Your task to perform on an android device: Add "logitech g pro" to the cart on ebay, then select checkout. Image 0: 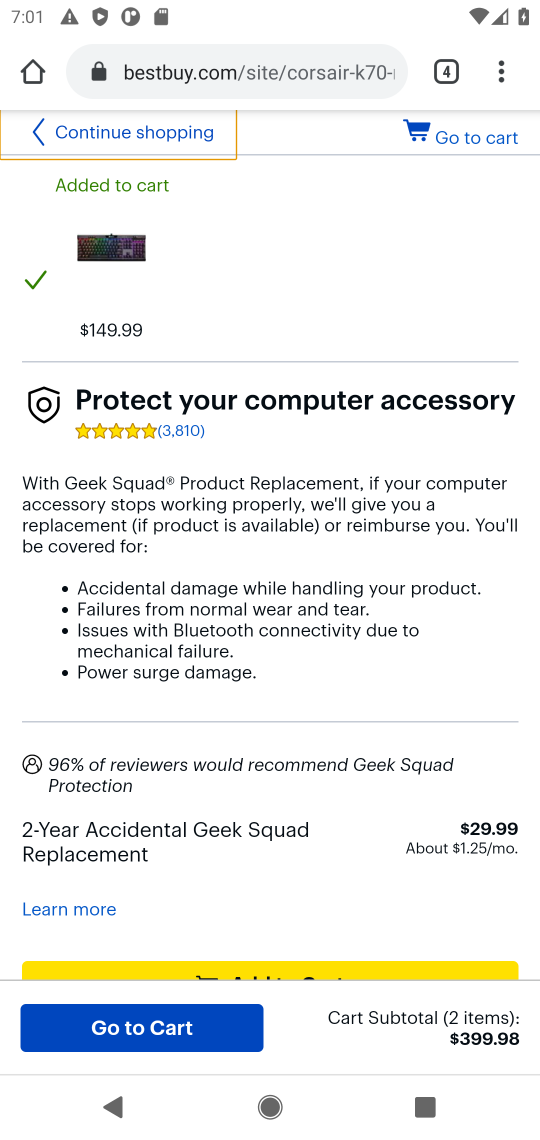
Step 0: drag from (280, 322) to (186, 1007)
Your task to perform on an android device: Add "logitech g pro" to the cart on ebay, then select checkout. Image 1: 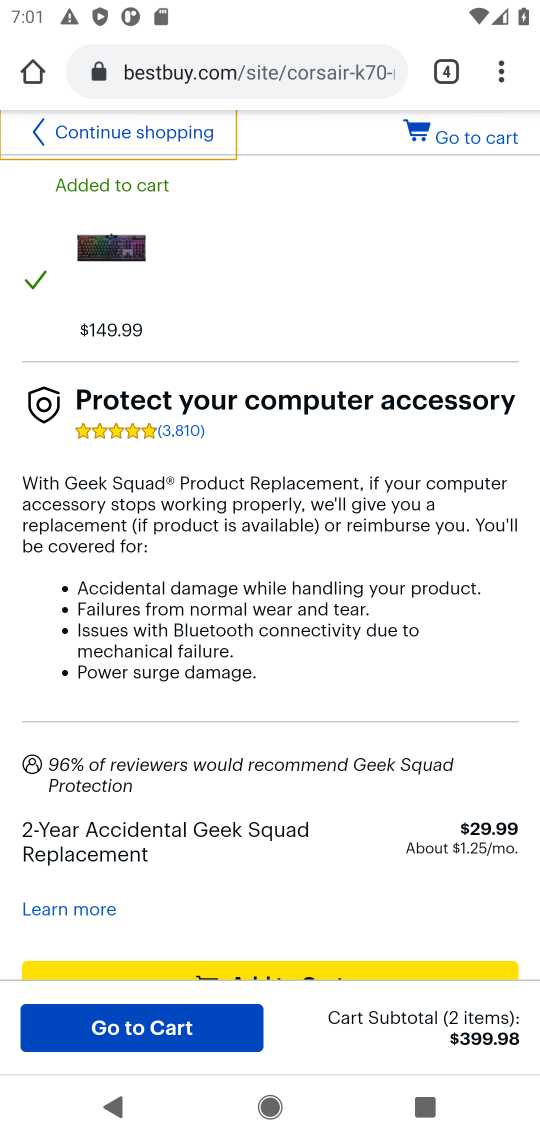
Step 1: click (439, 74)
Your task to perform on an android device: Add "logitech g pro" to the cart on ebay, then select checkout. Image 2: 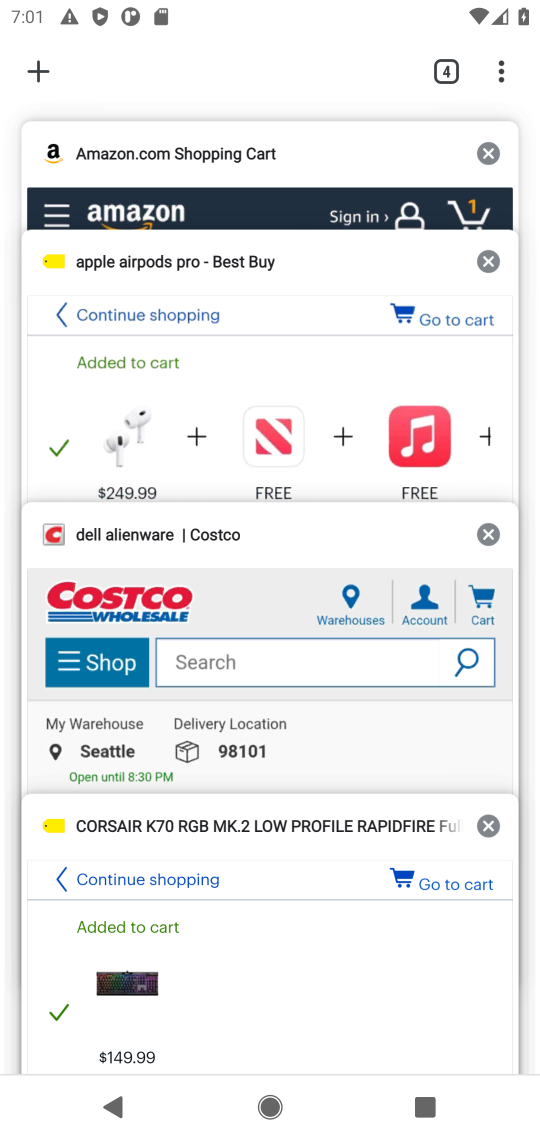
Step 2: click (35, 75)
Your task to perform on an android device: Add "logitech g pro" to the cart on ebay, then select checkout. Image 3: 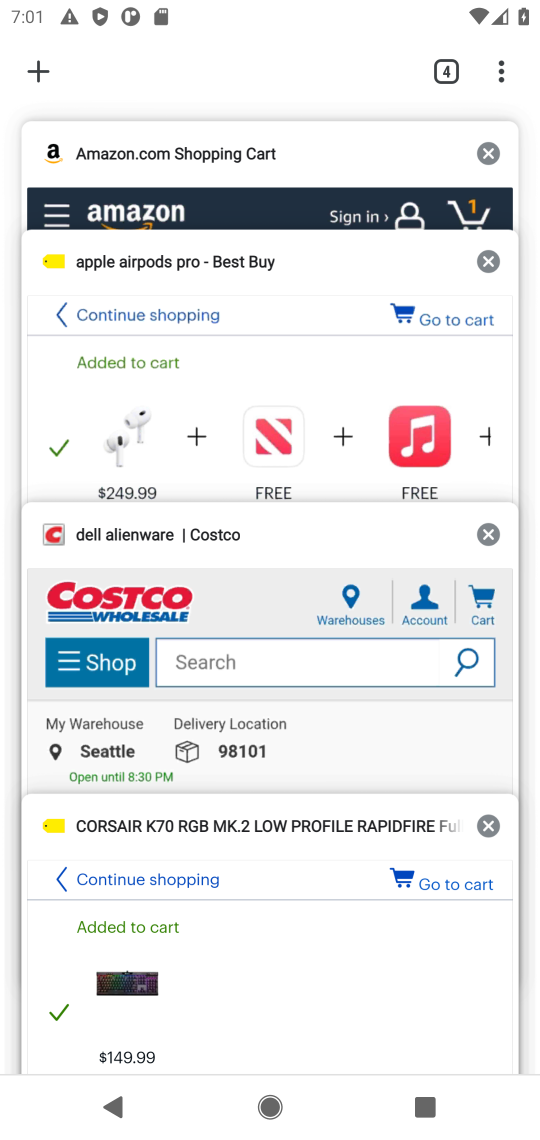
Step 3: click (31, 64)
Your task to perform on an android device: Add "logitech g pro" to the cart on ebay, then select checkout. Image 4: 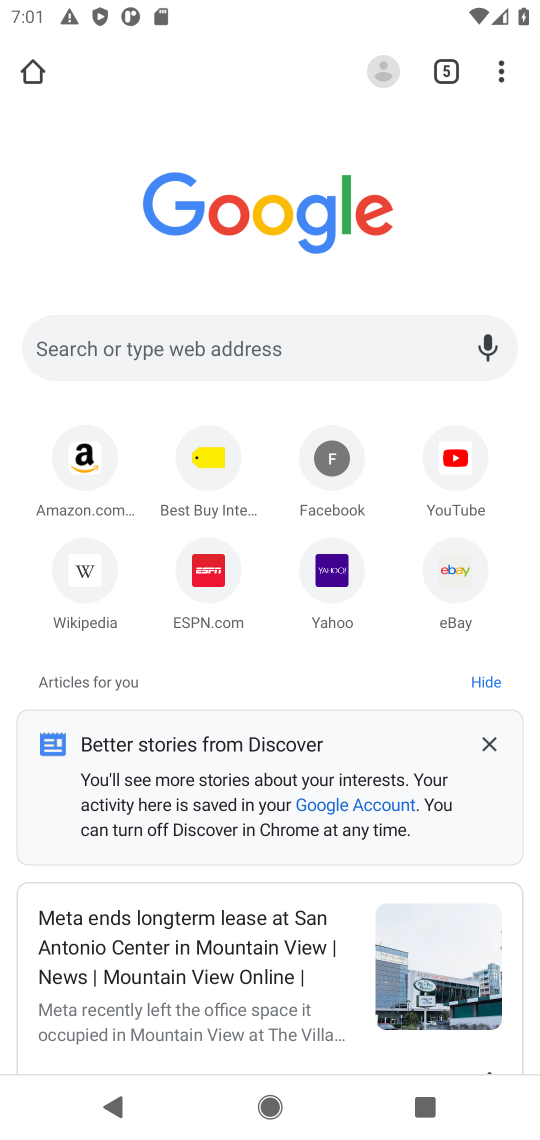
Step 4: click (160, 354)
Your task to perform on an android device: Add "logitech g pro" to the cart on ebay, then select checkout. Image 5: 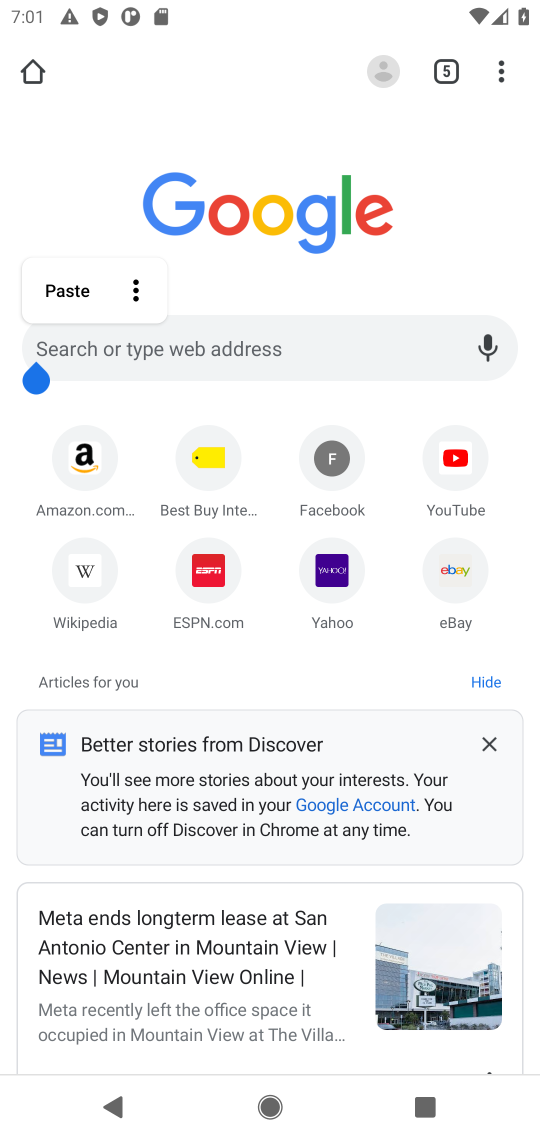
Step 5: click (470, 564)
Your task to perform on an android device: Add "logitech g pro" to the cart on ebay, then select checkout. Image 6: 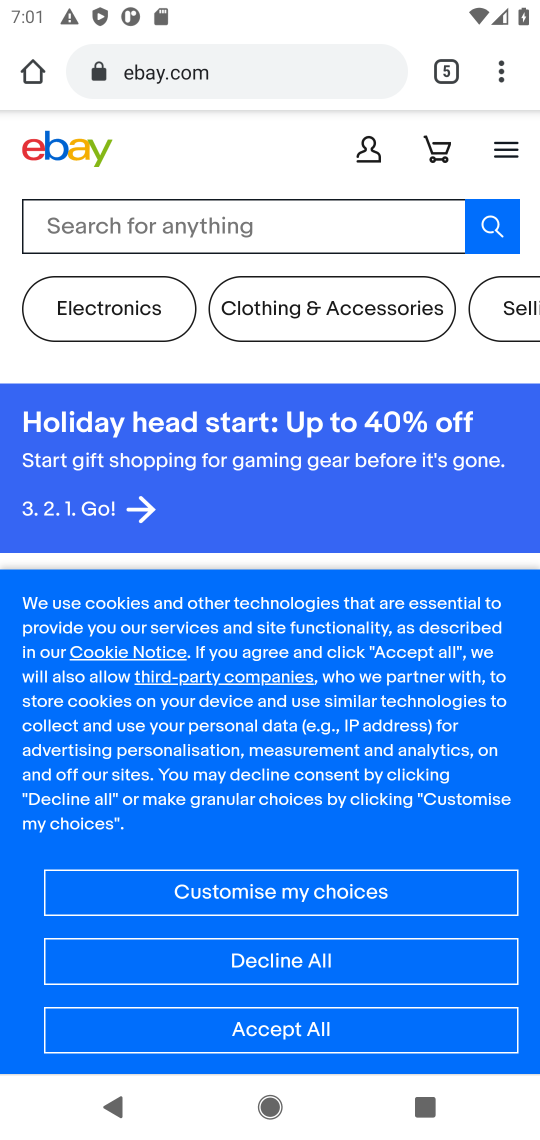
Step 6: click (224, 224)
Your task to perform on an android device: Add "logitech g pro" to the cart on ebay, then select checkout. Image 7: 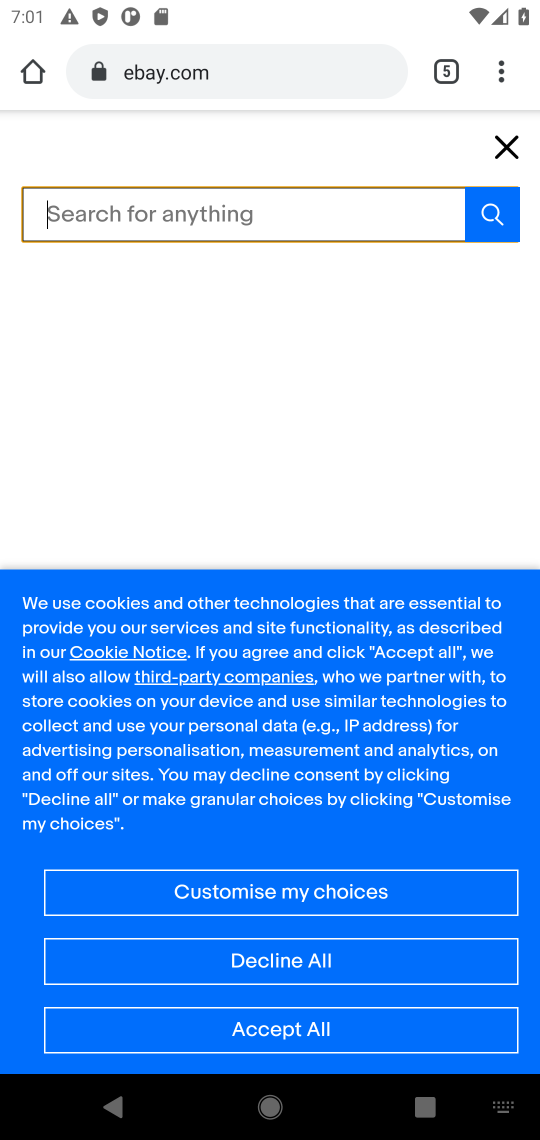
Step 7: type "logitech g pro"
Your task to perform on an android device: Add "logitech g pro" to the cart on ebay, then select checkout. Image 8: 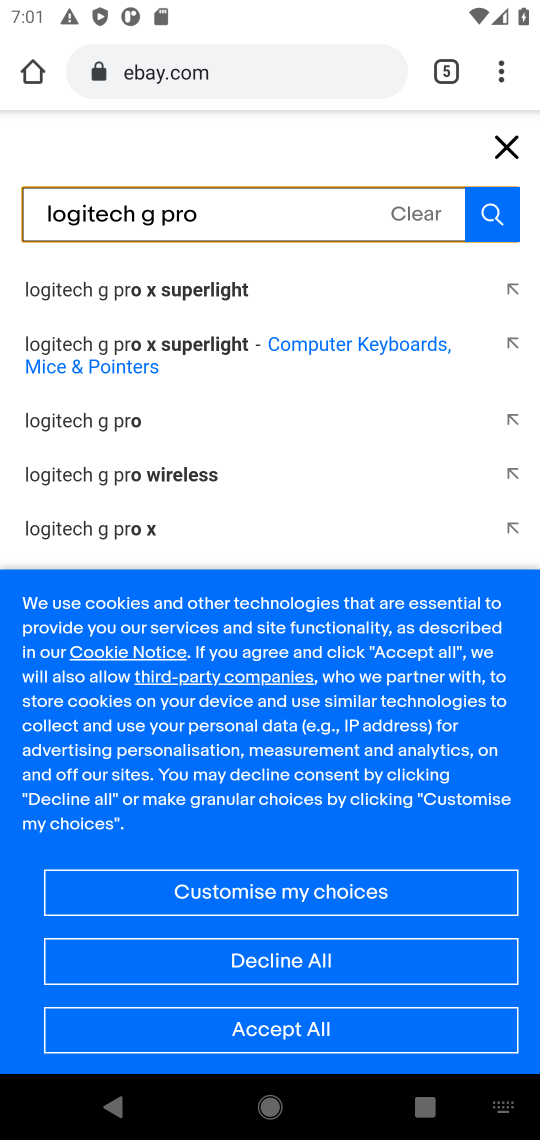
Step 8: click (102, 421)
Your task to perform on an android device: Add "logitech g pro" to the cart on ebay, then select checkout. Image 9: 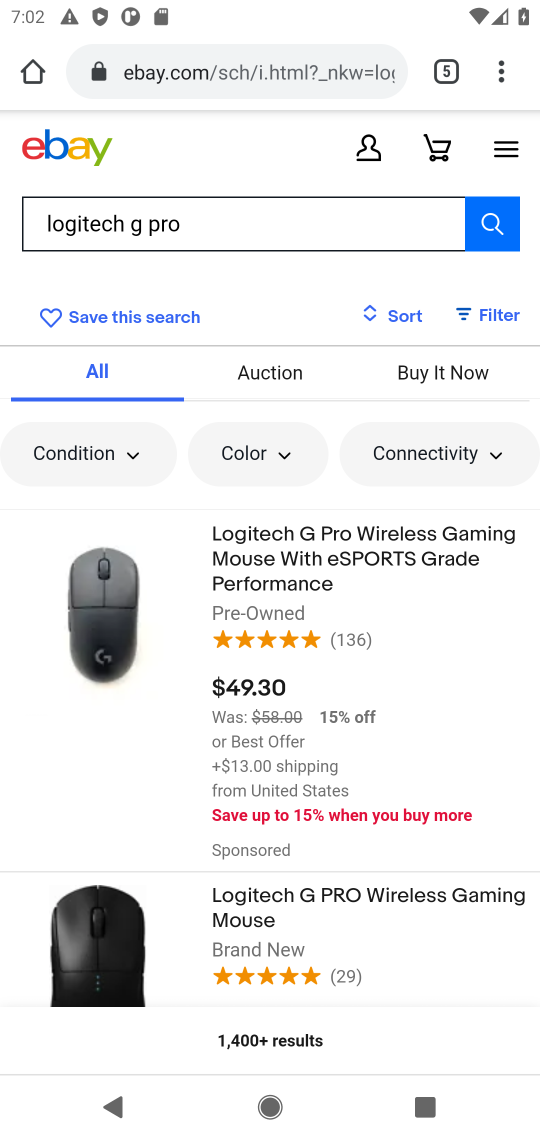
Step 9: click (354, 579)
Your task to perform on an android device: Add "logitech g pro" to the cart on ebay, then select checkout. Image 10: 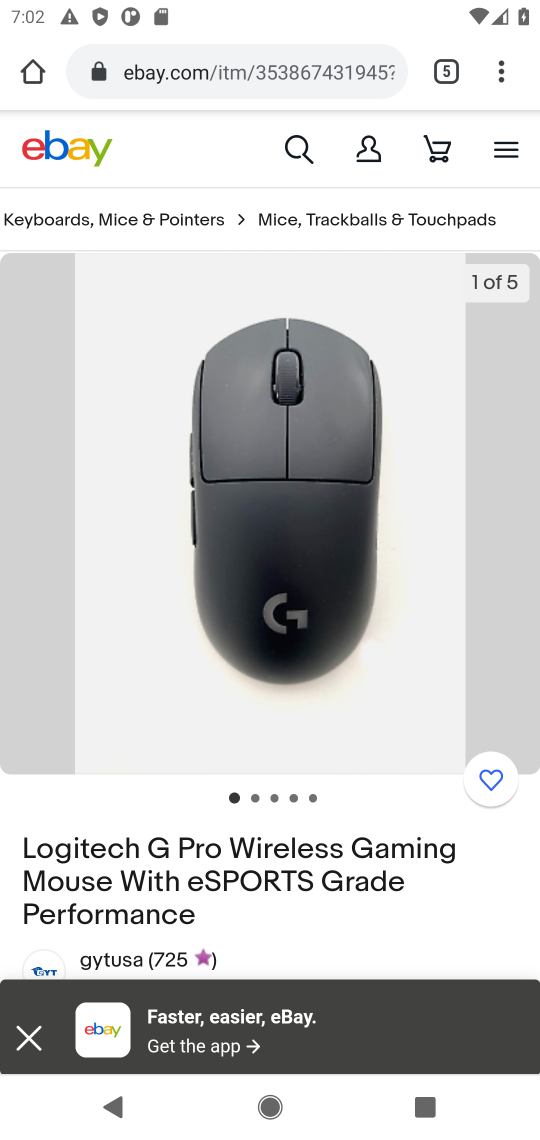
Step 10: drag from (319, 934) to (286, 243)
Your task to perform on an android device: Add "logitech g pro" to the cart on ebay, then select checkout. Image 11: 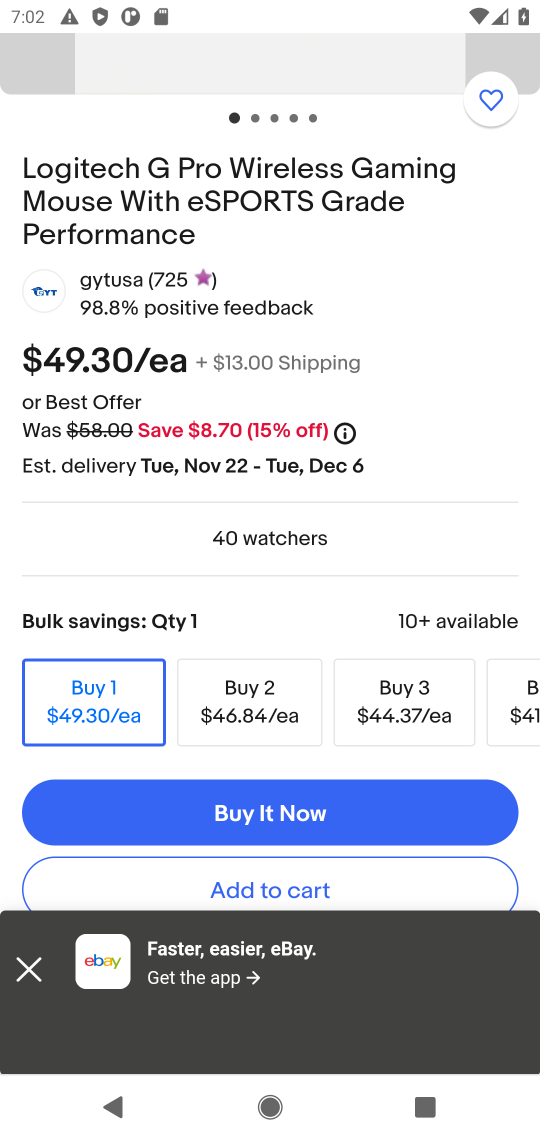
Step 11: drag from (234, 714) to (257, 421)
Your task to perform on an android device: Add "logitech g pro" to the cart on ebay, then select checkout. Image 12: 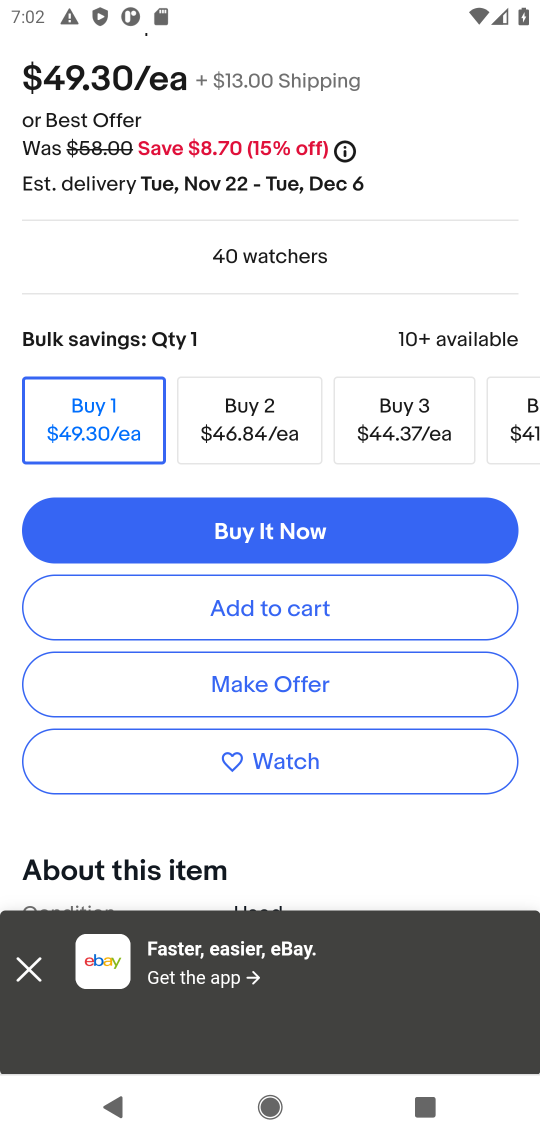
Step 12: click (269, 600)
Your task to perform on an android device: Add "logitech g pro" to the cart on ebay, then select checkout. Image 13: 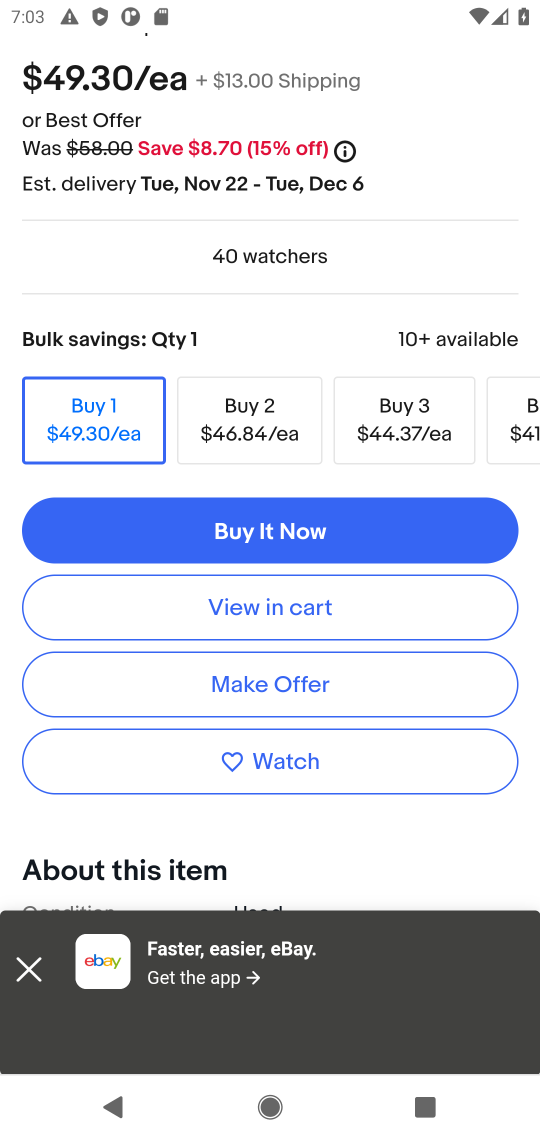
Step 13: task complete